Your task to perform on an android device: turn off location history Image 0: 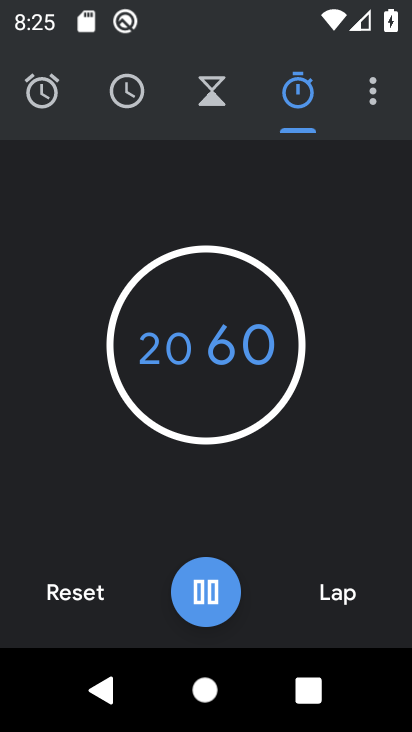
Step 0: press home button
Your task to perform on an android device: turn off location history Image 1: 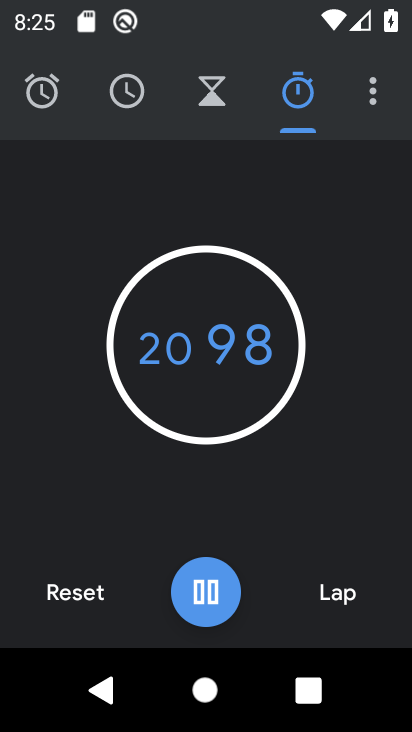
Step 1: press home button
Your task to perform on an android device: turn off location history Image 2: 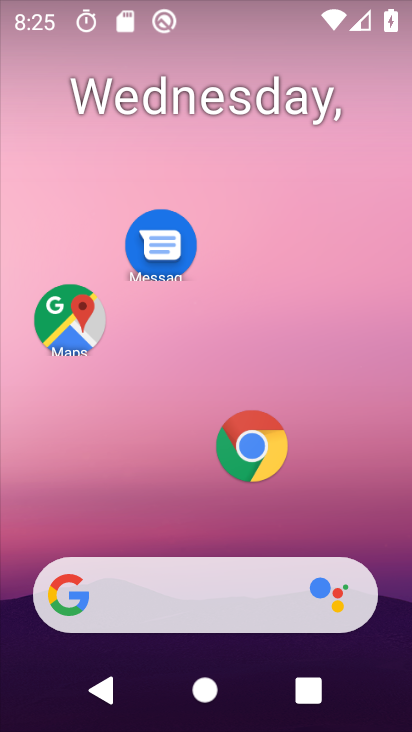
Step 2: drag from (212, 528) to (230, 30)
Your task to perform on an android device: turn off location history Image 3: 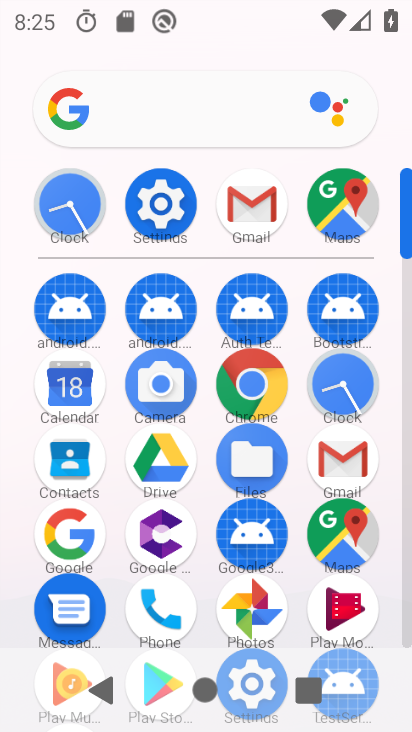
Step 3: click (156, 200)
Your task to perform on an android device: turn off location history Image 4: 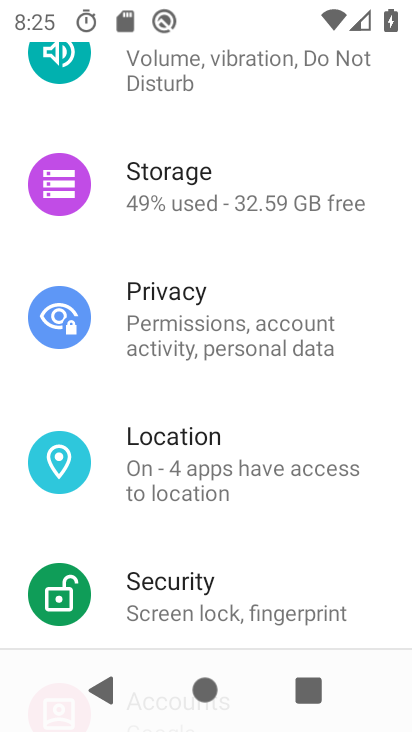
Step 4: click (239, 428)
Your task to perform on an android device: turn off location history Image 5: 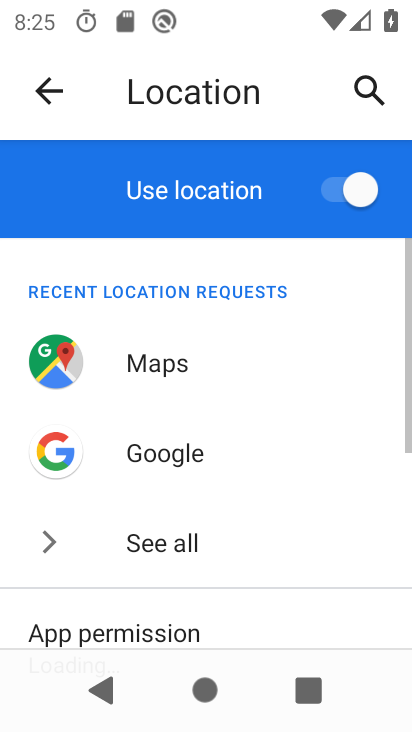
Step 5: drag from (230, 617) to (228, 135)
Your task to perform on an android device: turn off location history Image 6: 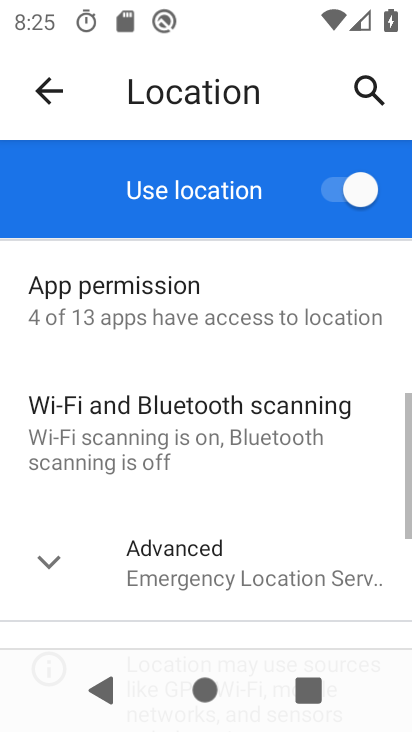
Step 6: click (53, 567)
Your task to perform on an android device: turn off location history Image 7: 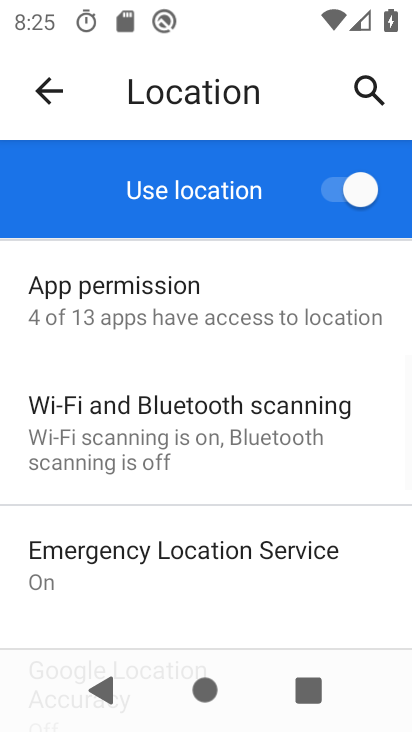
Step 7: drag from (184, 586) to (182, 127)
Your task to perform on an android device: turn off location history Image 8: 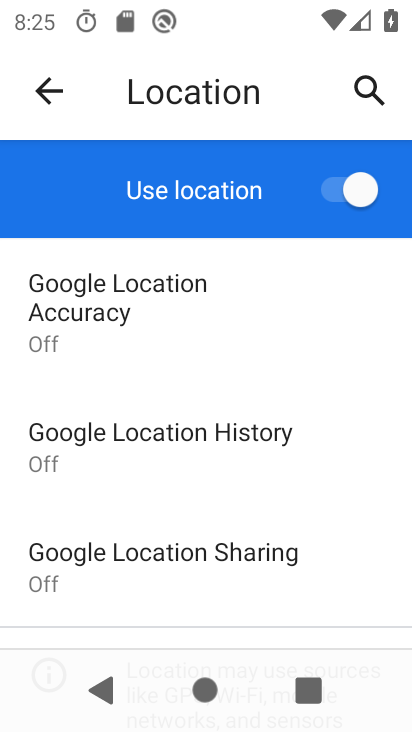
Step 8: click (171, 448)
Your task to perform on an android device: turn off location history Image 9: 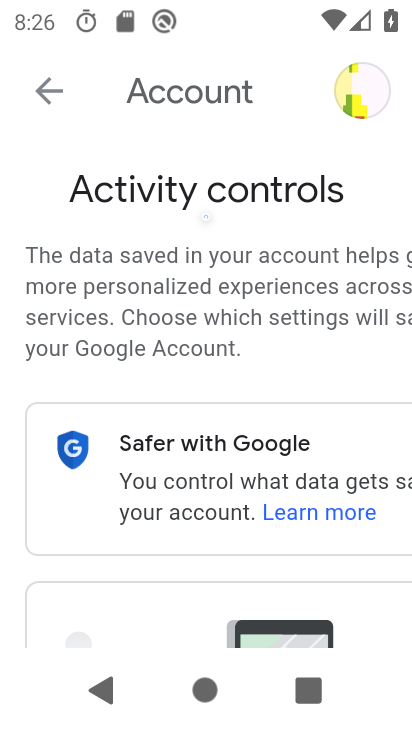
Step 9: drag from (200, 594) to (189, 92)
Your task to perform on an android device: turn off location history Image 10: 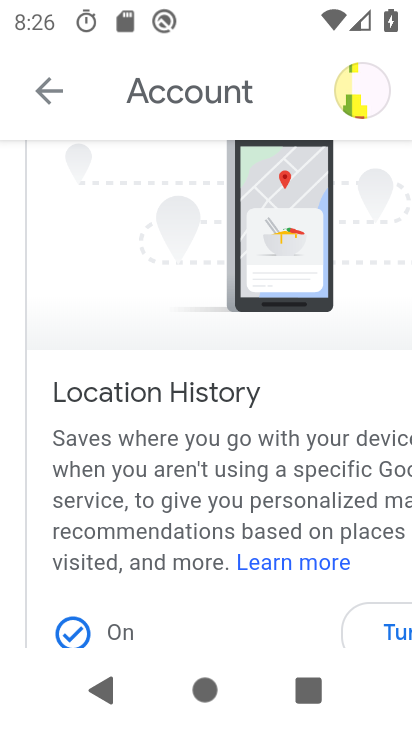
Step 10: click (377, 627)
Your task to perform on an android device: turn off location history Image 11: 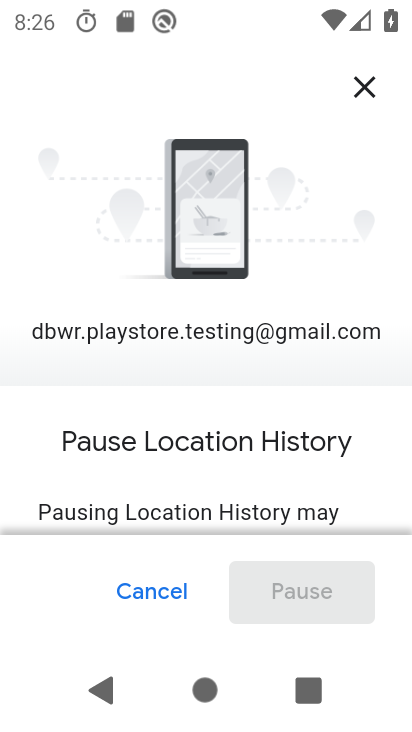
Step 11: drag from (267, 502) to (257, 35)
Your task to perform on an android device: turn off location history Image 12: 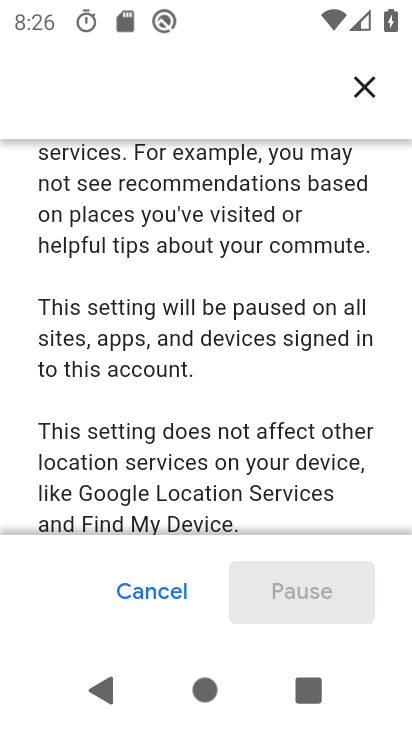
Step 12: drag from (252, 509) to (252, 61)
Your task to perform on an android device: turn off location history Image 13: 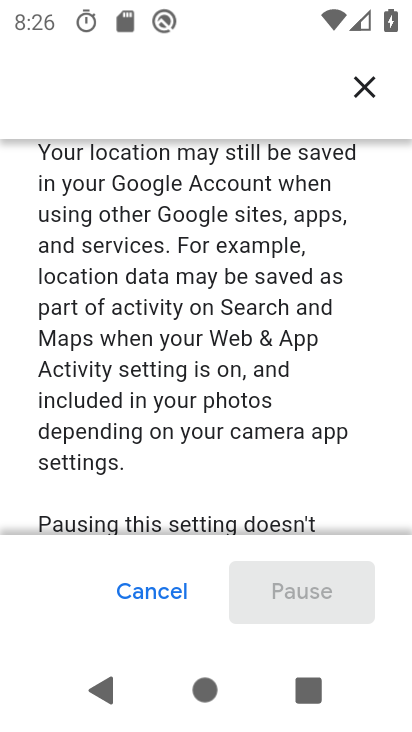
Step 13: drag from (220, 475) to (206, 158)
Your task to perform on an android device: turn off location history Image 14: 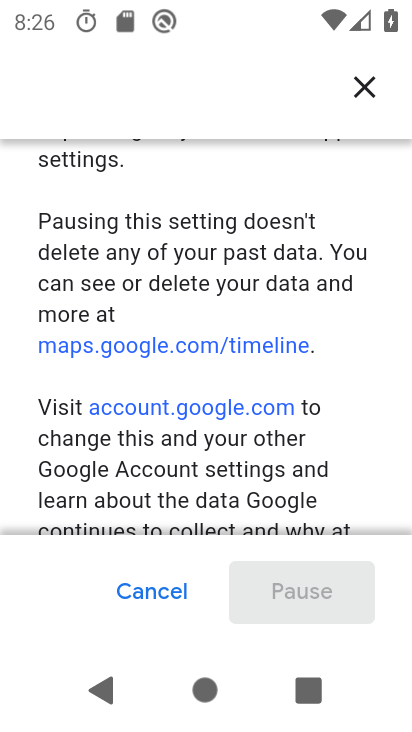
Step 14: drag from (239, 492) to (241, 153)
Your task to perform on an android device: turn off location history Image 15: 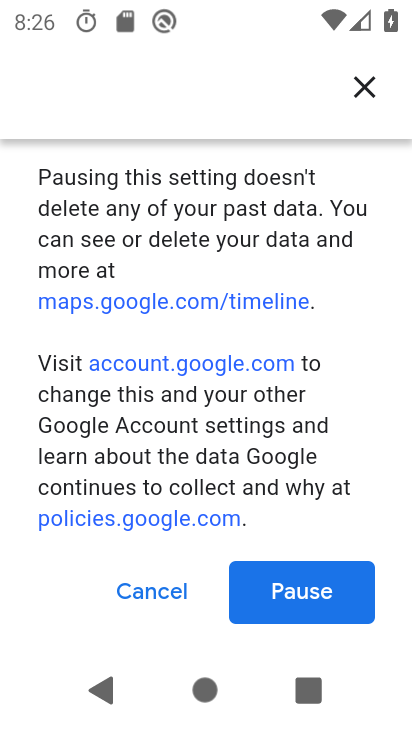
Step 15: click (303, 585)
Your task to perform on an android device: turn off location history Image 16: 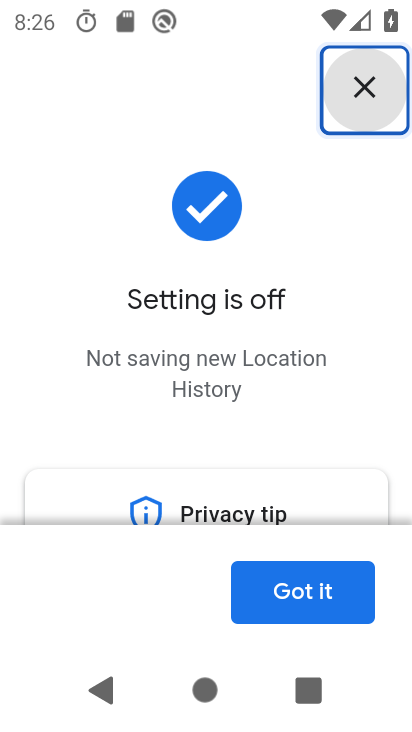
Step 16: click (312, 584)
Your task to perform on an android device: turn off location history Image 17: 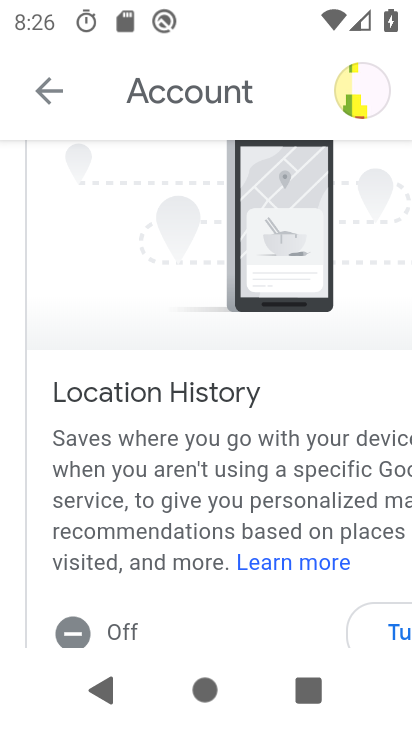
Step 17: task complete